Your task to perform on an android device: Check the weather Image 0: 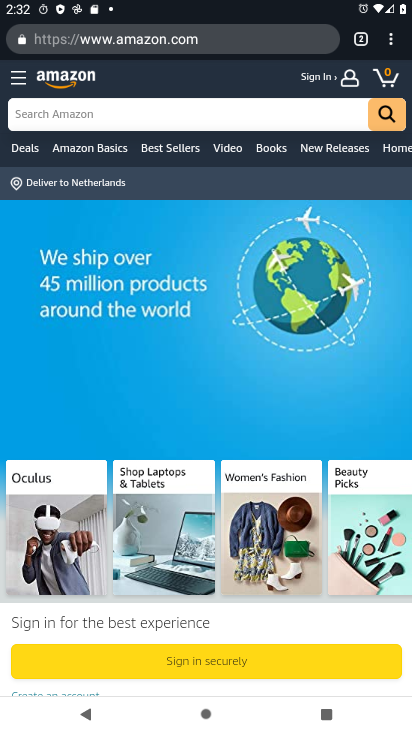
Step 0: press home button
Your task to perform on an android device: Check the weather Image 1: 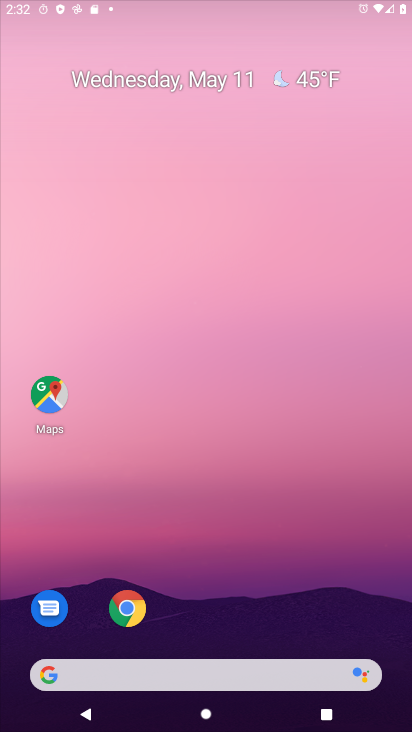
Step 1: drag from (244, 642) to (272, 87)
Your task to perform on an android device: Check the weather Image 2: 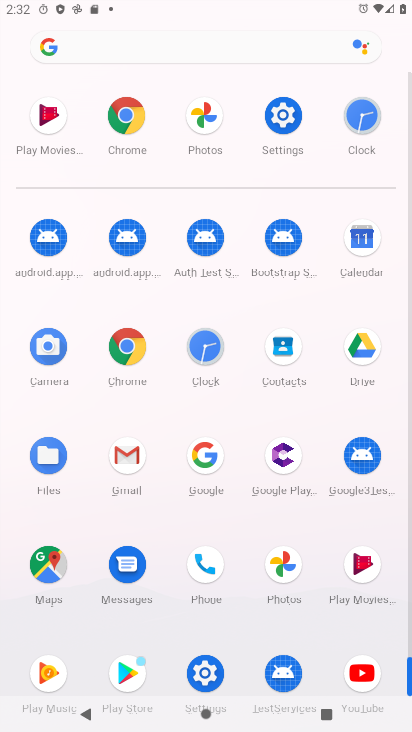
Step 2: click (207, 455)
Your task to perform on an android device: Check the weather Image 3: 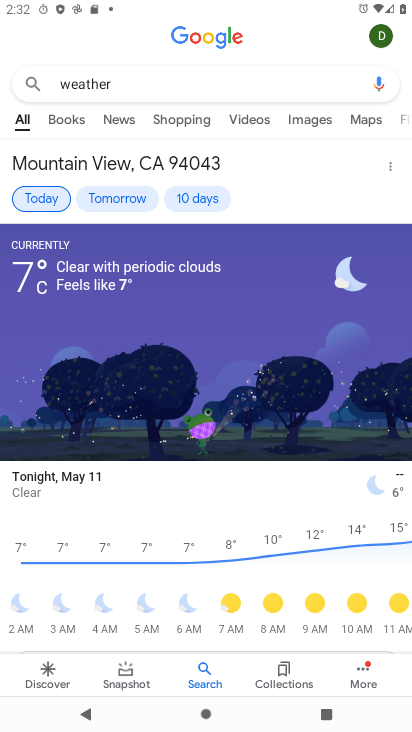
Step 3: task complete